Your task to perform on an android device: Open Maps and search for coffee Image 0: 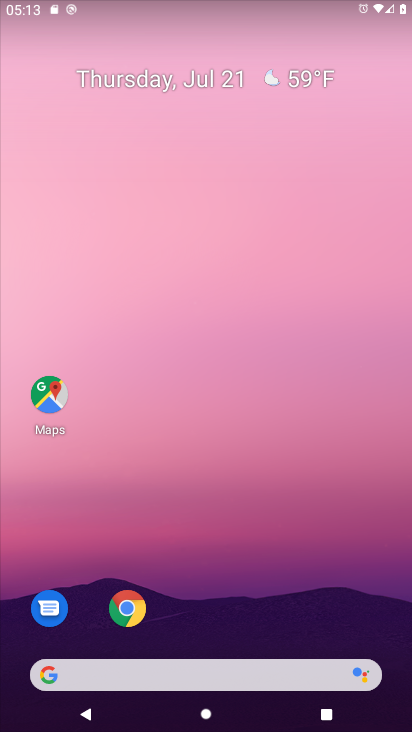
Step 0: drag from (206, 654) to (251, 0)
Your task to perform on an android device: Open Maps and search for coffee Image 1: 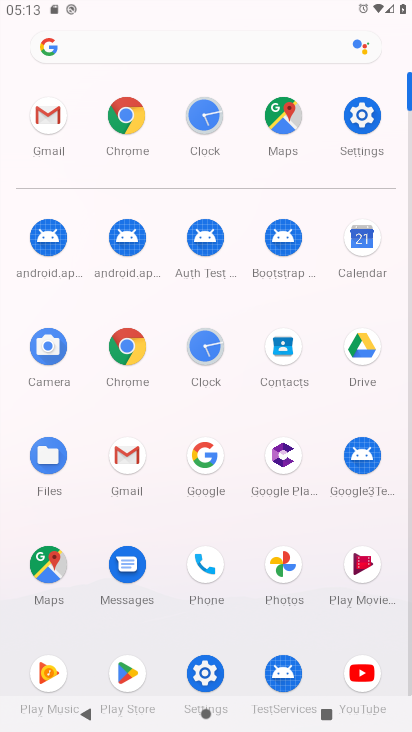
Step 1: click (36, 563)
Your task to perform on an android device: Open Maps and search for coffee Image 2: 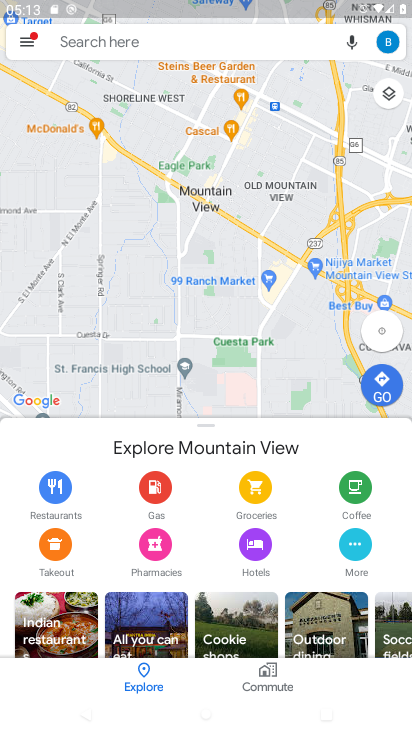
Step 2: click (215, 40)
Your task to perform on an android device: Open Maps and search for coffee Image 3: 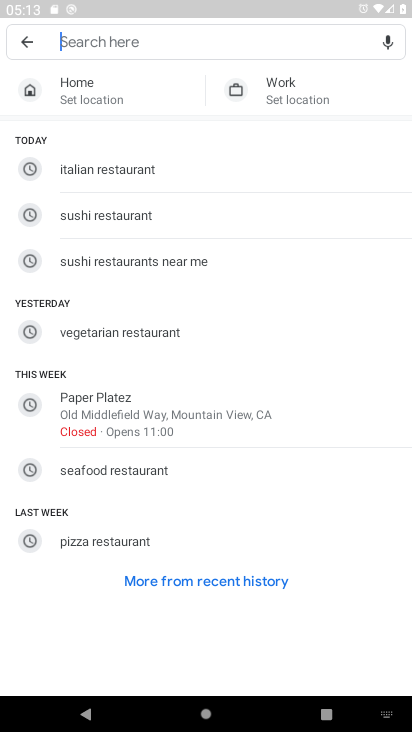
Step 3: type "coffee"
Your task to perform on an android device: Open Maps and search for coffee Image 4: 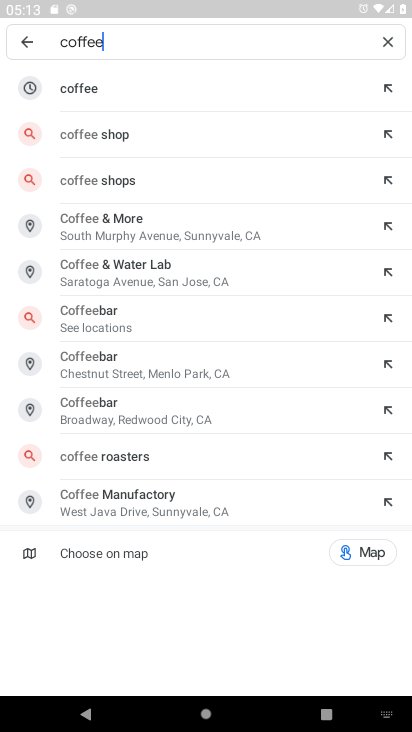
Step 4: click (124, 95)
Your task to perform on an android device: Open Maps and search for coffee Image 5: 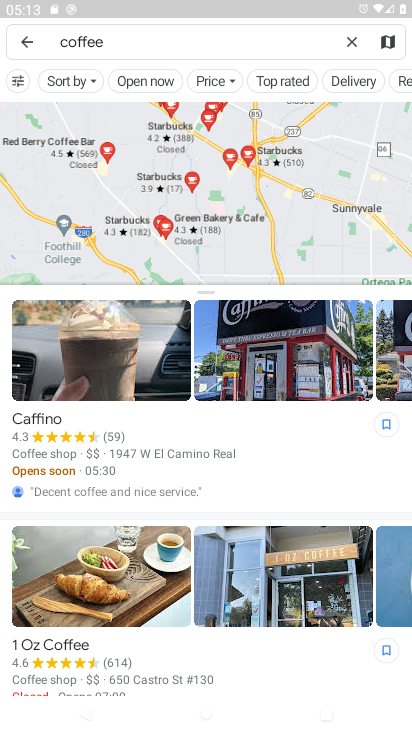
Step 5: task complete